Your task to perform on an android device: Search for Mexican restaurants on Maps Image 0: 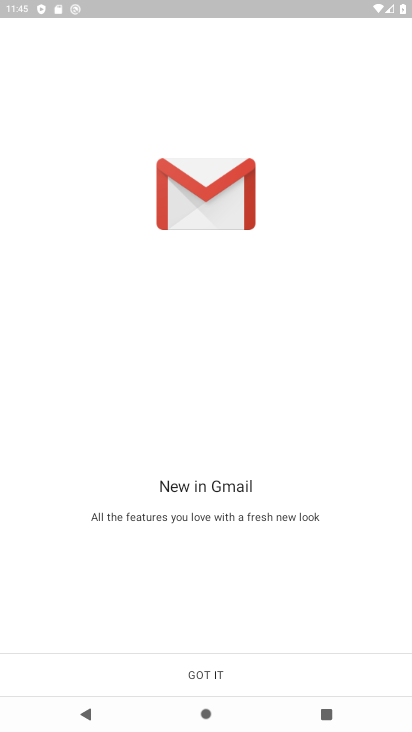
Step 0: press home button
Your task to perform on an android device: Search for Mexican restaurants on Maps Image 1: 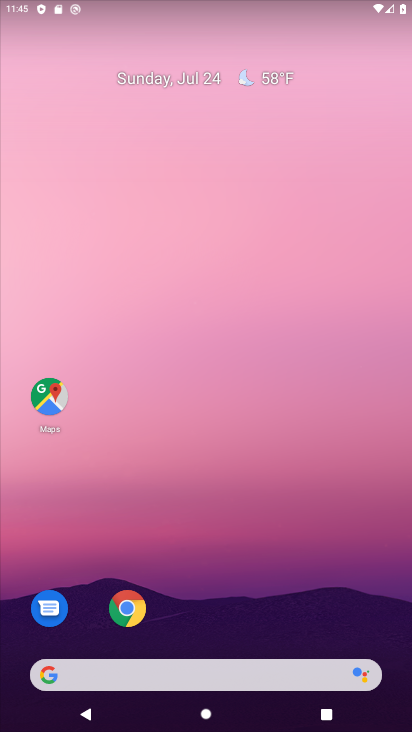
Step 1: click (44, 411)
Your task to perform on an android device: Search for Mexican restaurants on Maps Image 2: 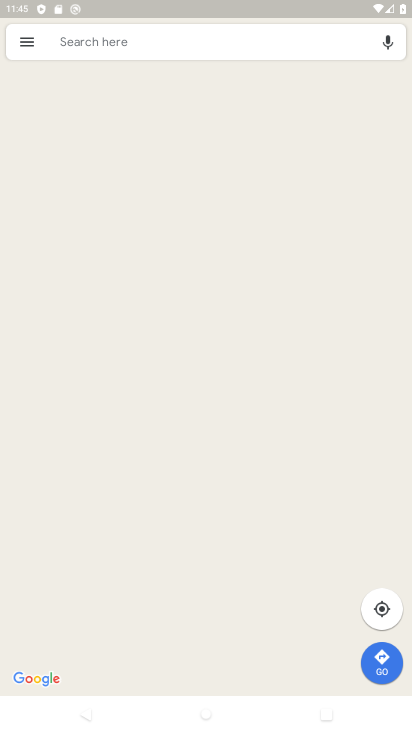
Step 2: click (184, 41)
Your task to perform on an android device: Search for Mexican restaurants on Maps Image 3: 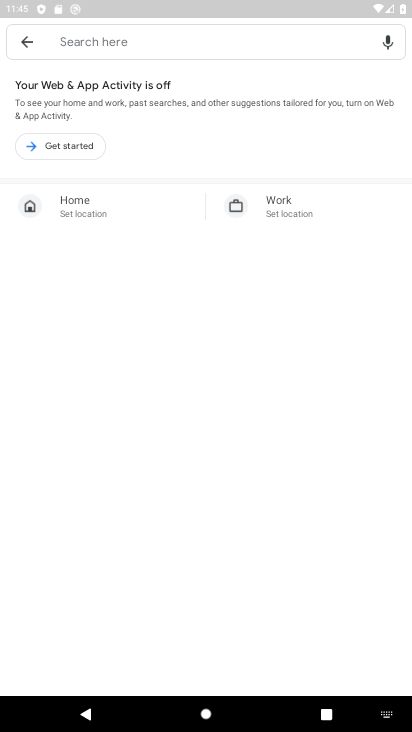
Step 3: click (91, 136)
Your task to perform on an android device: Search for Mexican restaurants on Maps Image 4: 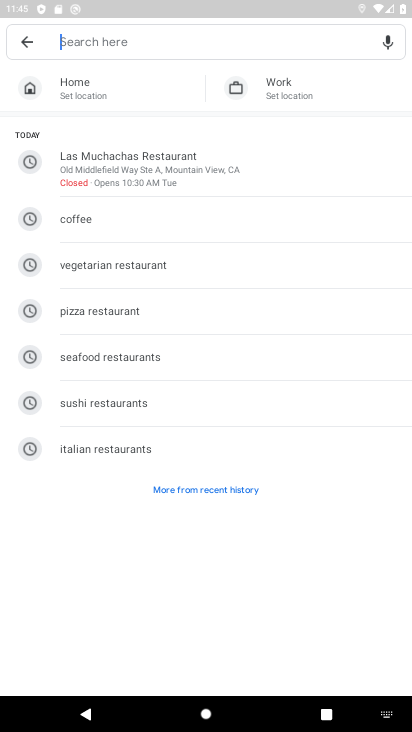
Step 4: type "mexican restaurants"
Your task to perform on an android device: Search for Mexican restaurants on Maps Image 5: 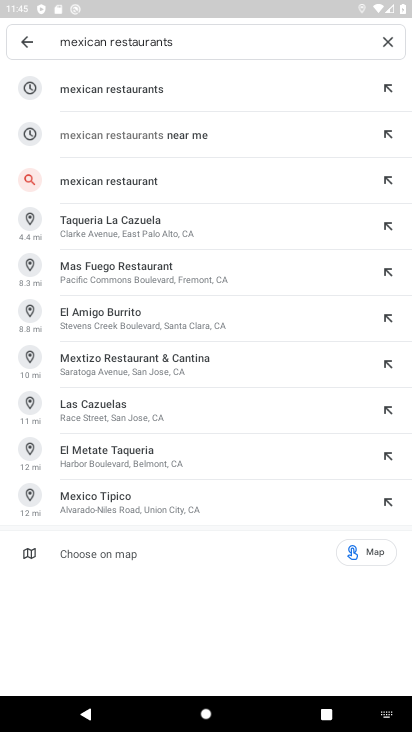
Step 5: click (150, 101)
Your task to perform on an android device: Search for Mexican restaurants on Maps Image 6: 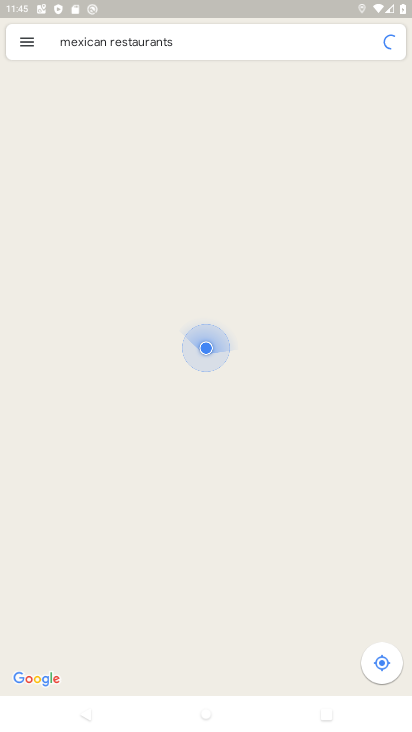
Step 6: task complete